Your task to perform on an android device: check storage Image 0: 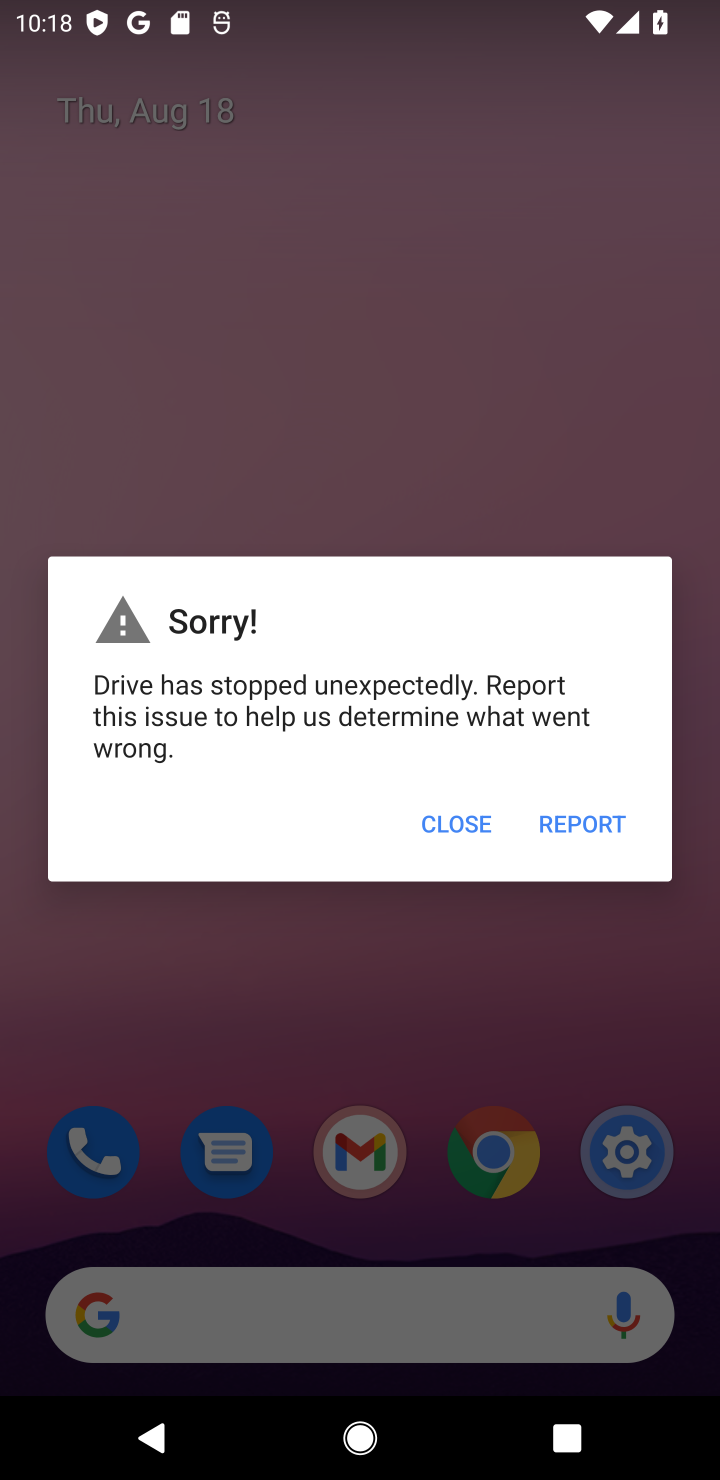
Step 0: press home button
Your task to perform on an android device: check storage Image 1: 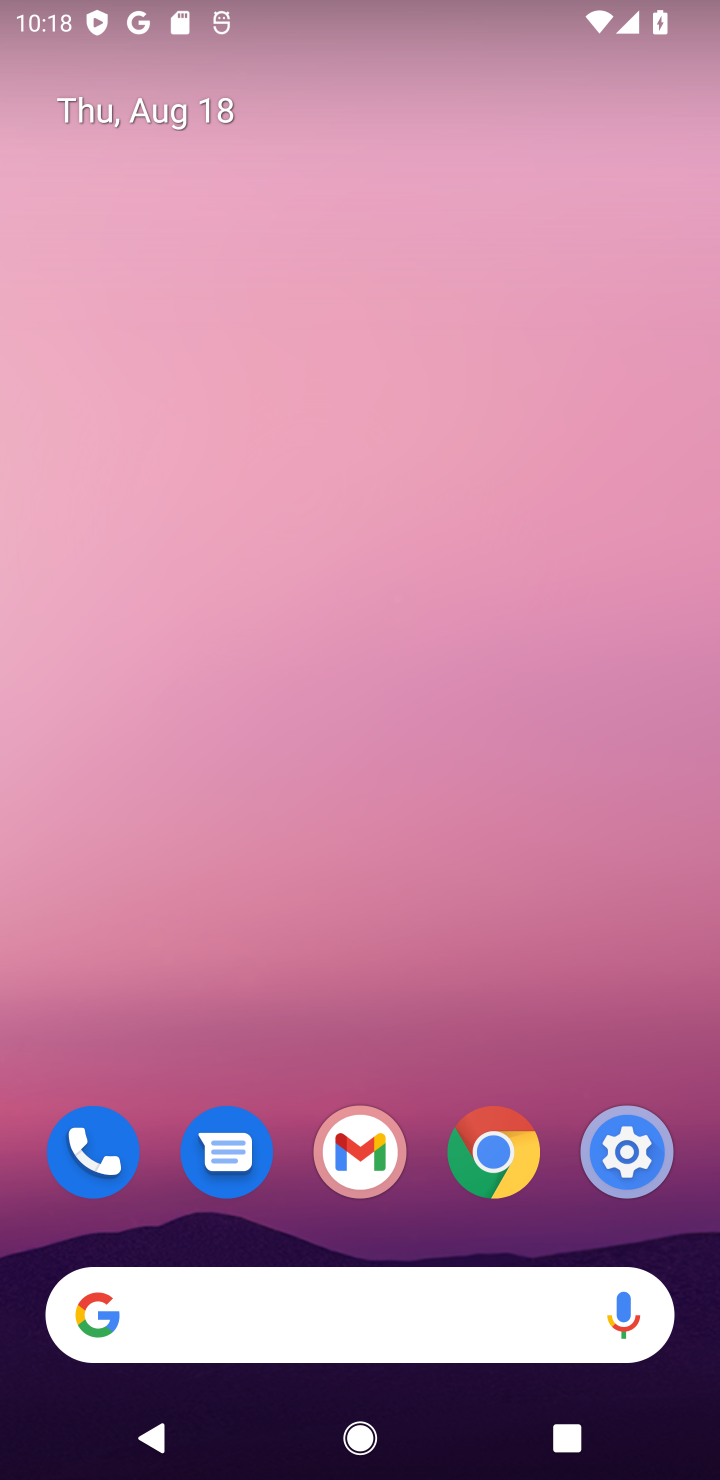
Step 1: click (620, 1138)
Your task to perform on an android device: check storage Image 2: 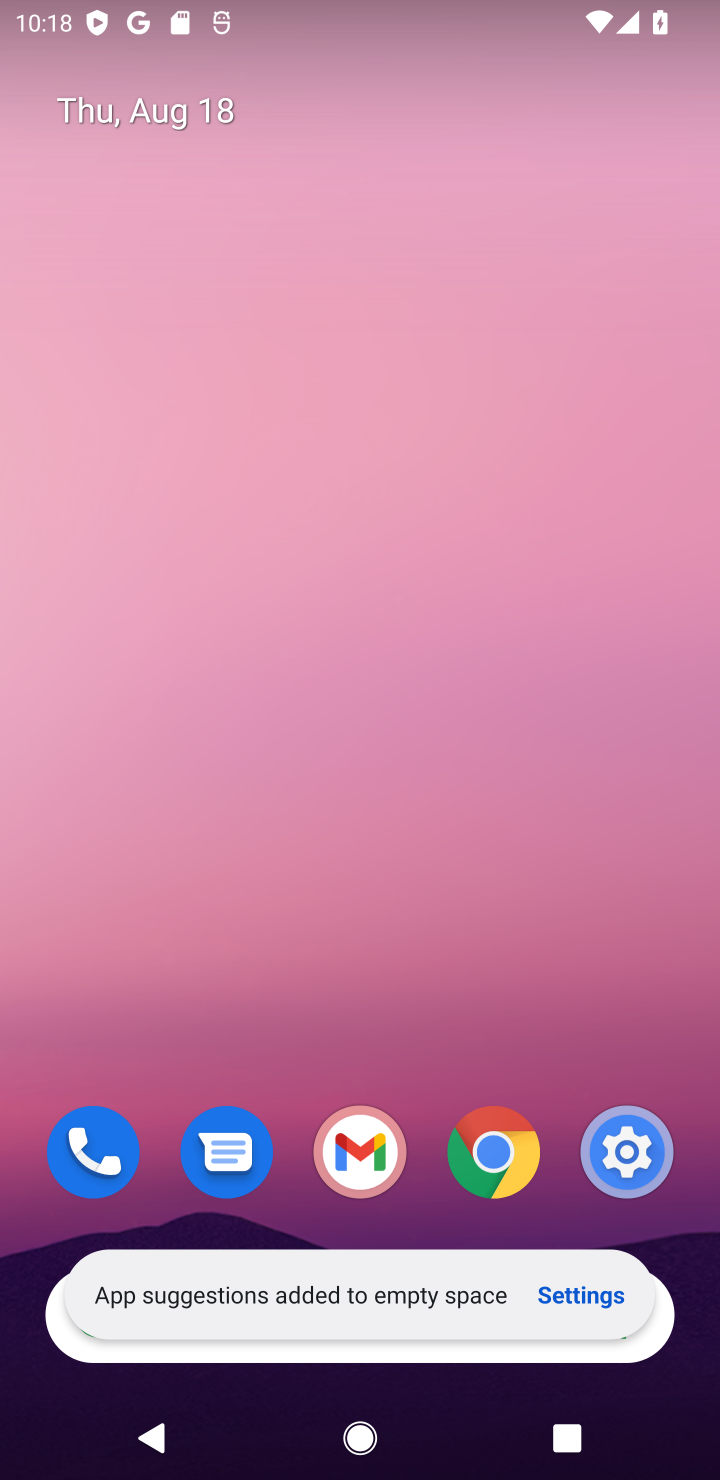
Step 2: click (620, 1138)
Your task to perform on an android device: check storage Image 3: 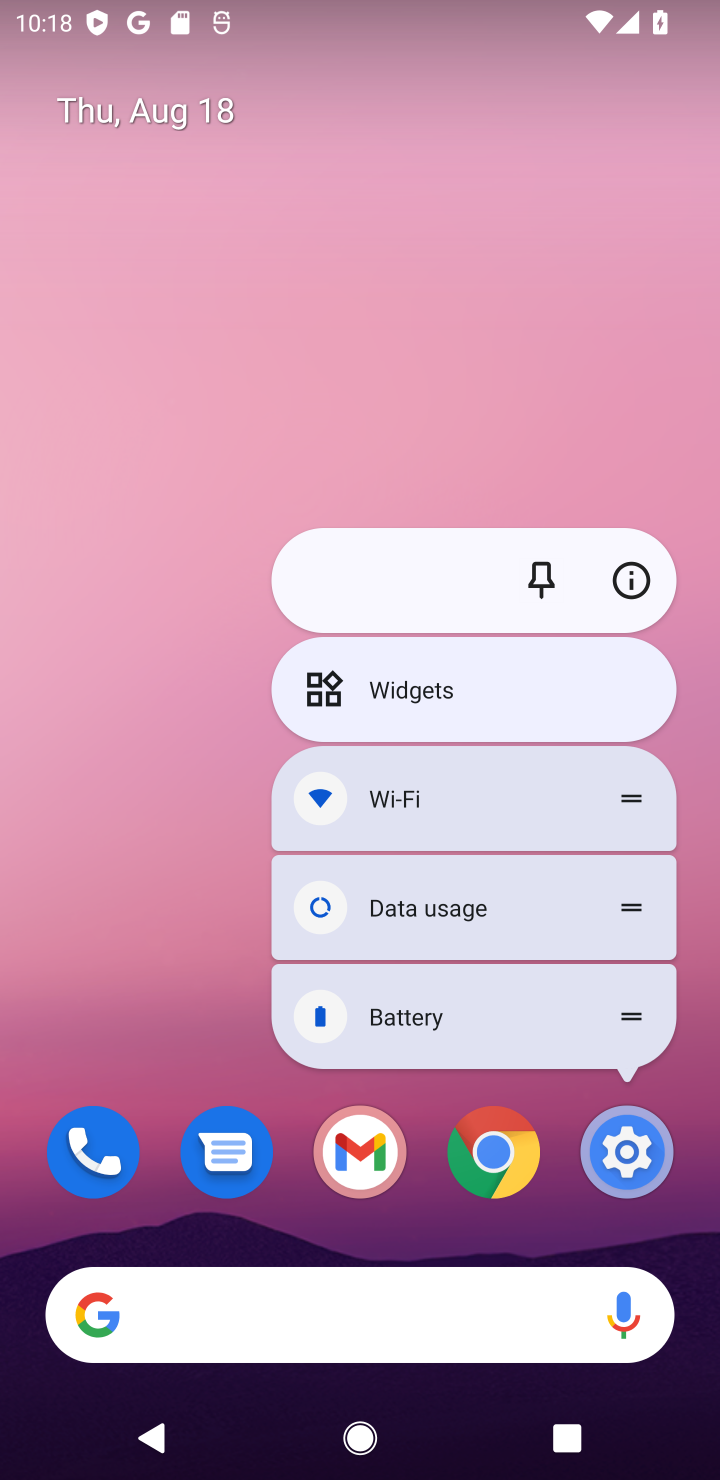
Step 3: click (620, 1138)
Your task to perform on an android device: check storage Image 4: 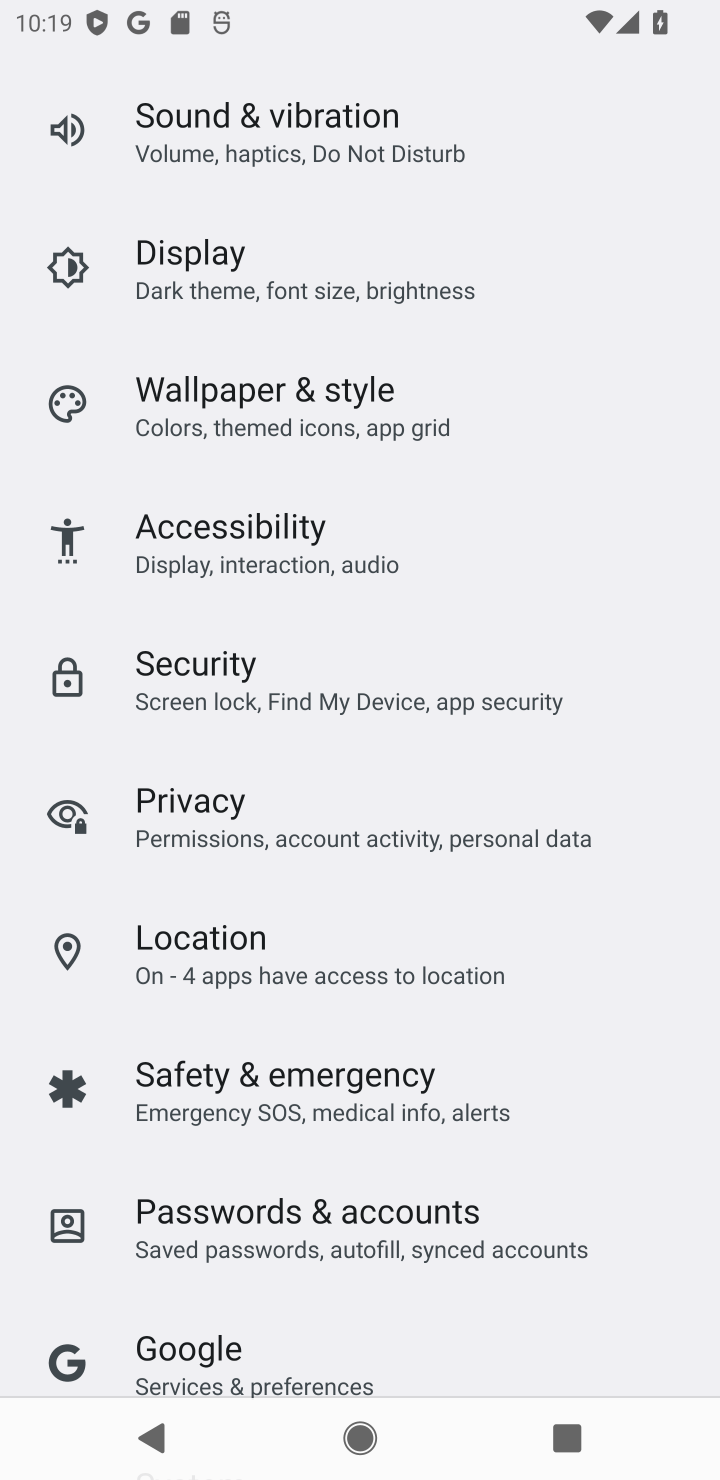
Step 4: drag from (411, 574) to (389, 1371)
Your task to perform on an android device: check storage Image 5: 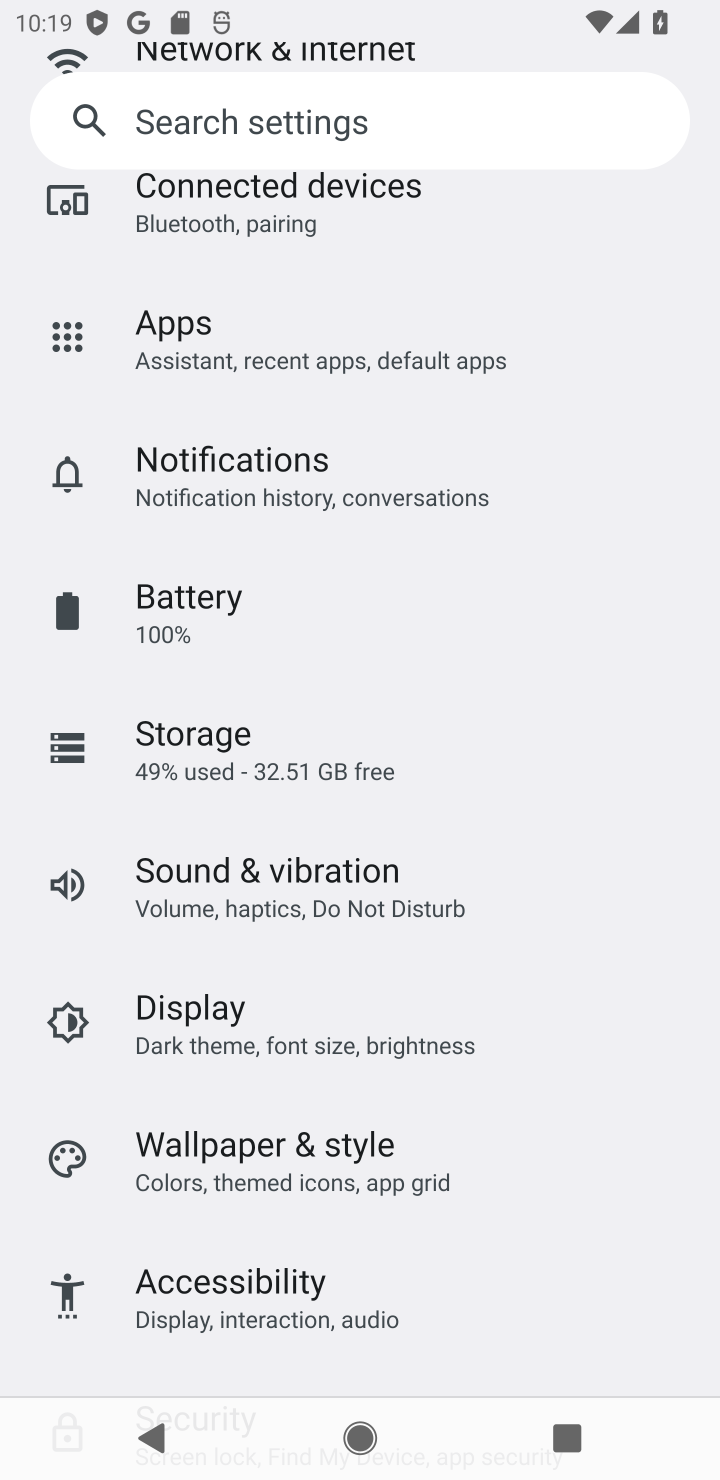
Step 5: drag from (379, 609) to (441, 533)
Your task to perform on an android device: check storage Image 6: 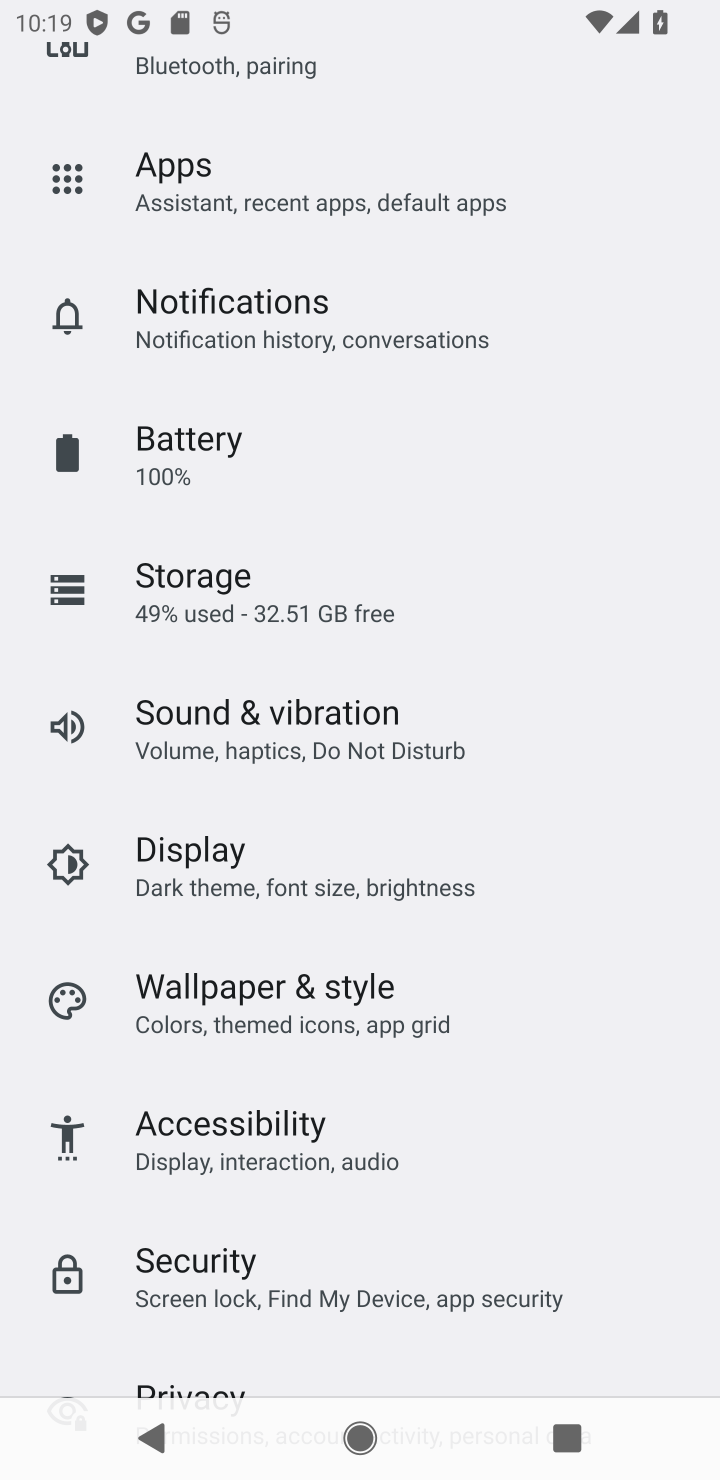
Step 6: click (359, 600)
Your task to perform on an android device: check storage Image 7: 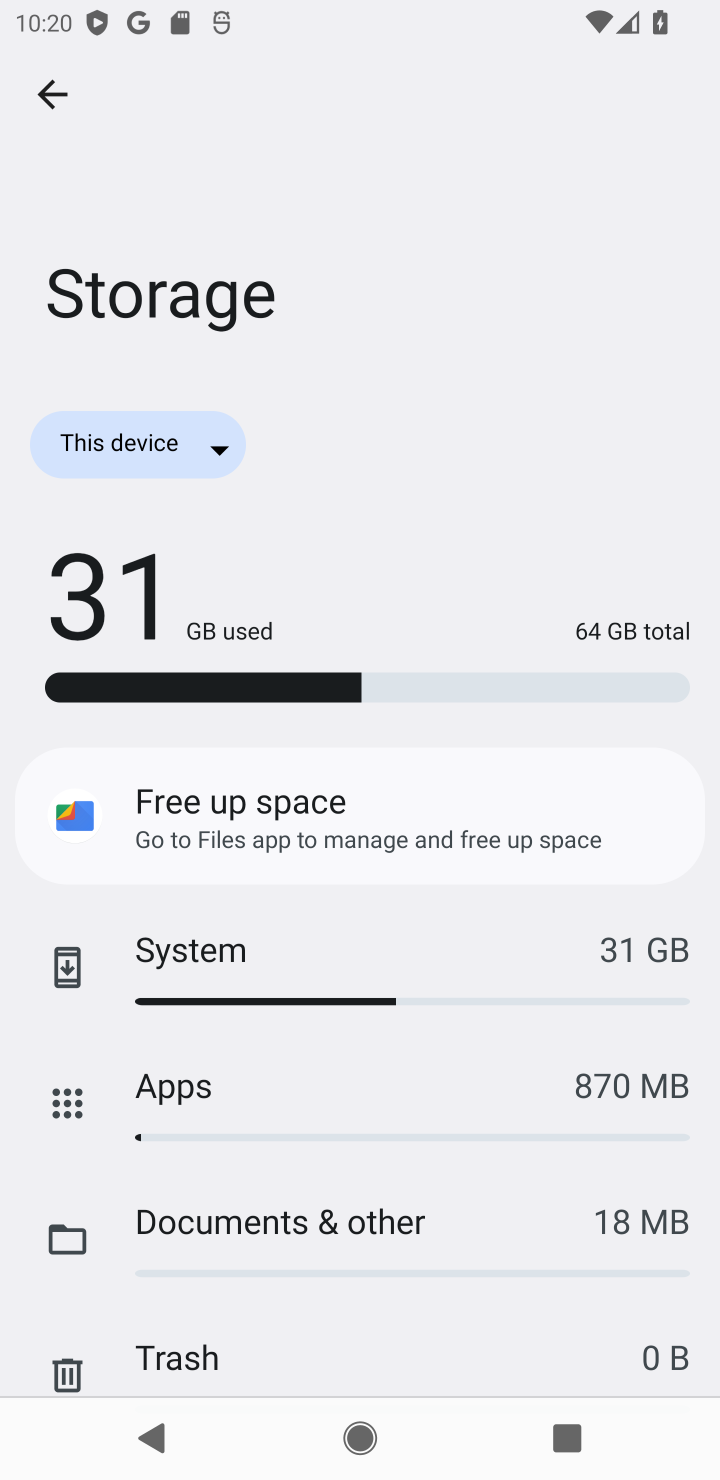
Step 7: task complete